Your task to perform on an android device: turn smart compose on in the gmail app Image 0: 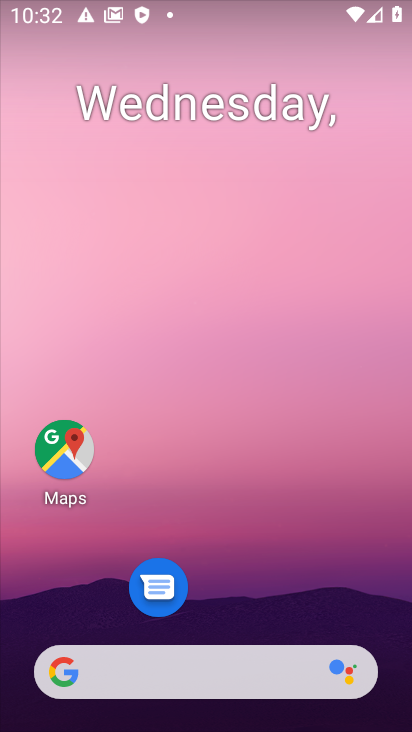
Step 0: press home button
Your task to perform on an android device: turn smart compose on in the gmail app Image 1: 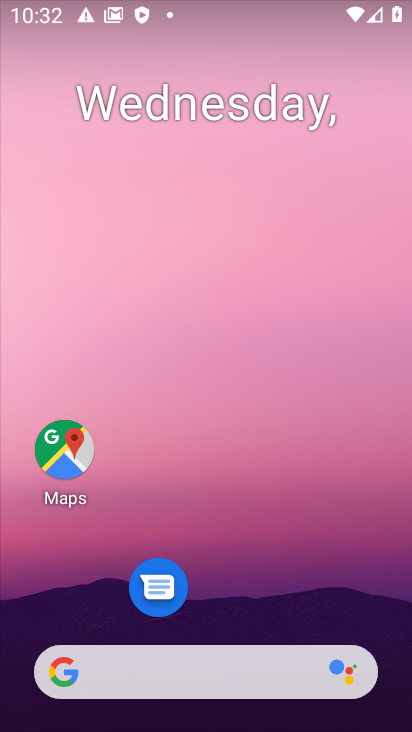
Step 1: drag from (224, 630) to (225, 82)
Your task to perform on an android device: turn smart compose on in the gmail app Image 2: 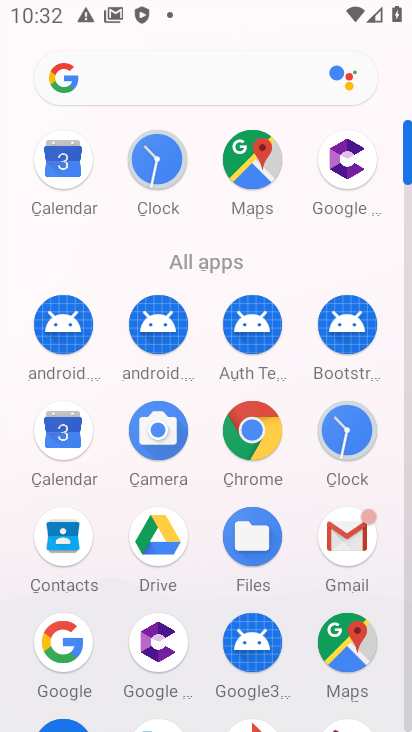
Step 2: click (348, 529)
Your task to perform on an android device: turn smart compose on in the gmail app Image 3: 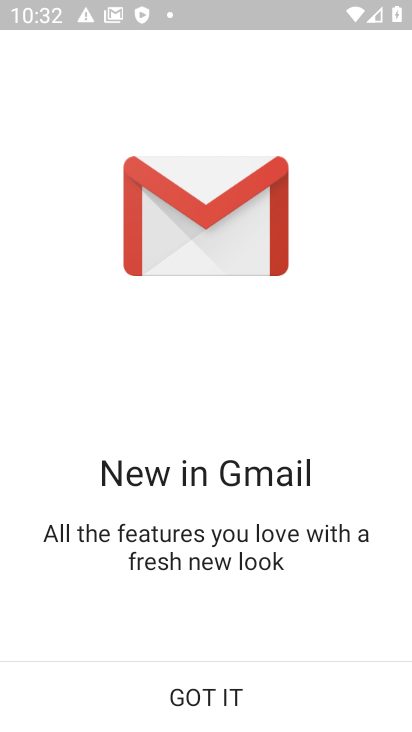
Step 3: click (208, 700)
Your task to perform on an android device: turn smart compose on in the gmail app Image 4: 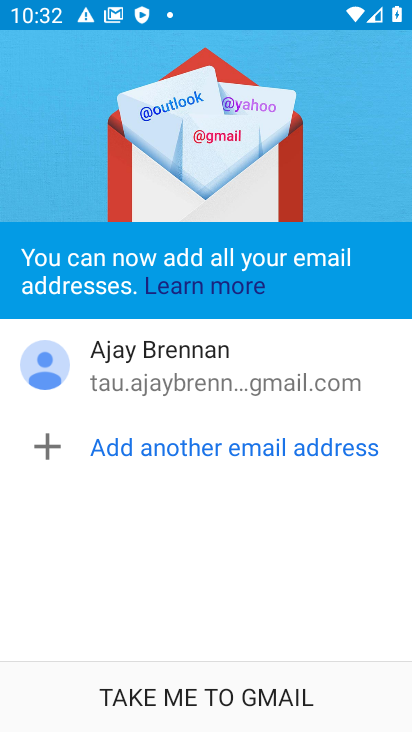
Step 4: click (208, 700)
Your task to perform on an android device: turn smart compose on in the gmail app Image 5: 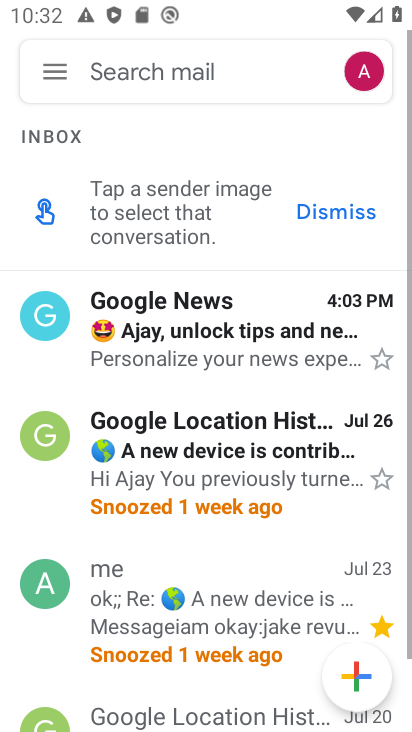
Step 5: click (65, 62)
Your task to perform on an android device: turn smart compose on in the gmail app Image 6: 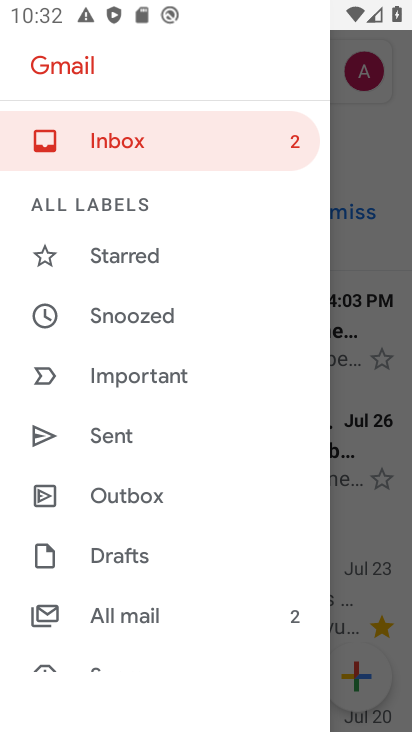
Step 6: drag from (139, 631) to (134, 53)
Your task to perform on an android device: turn smart compose on in the gmail app Image 7: 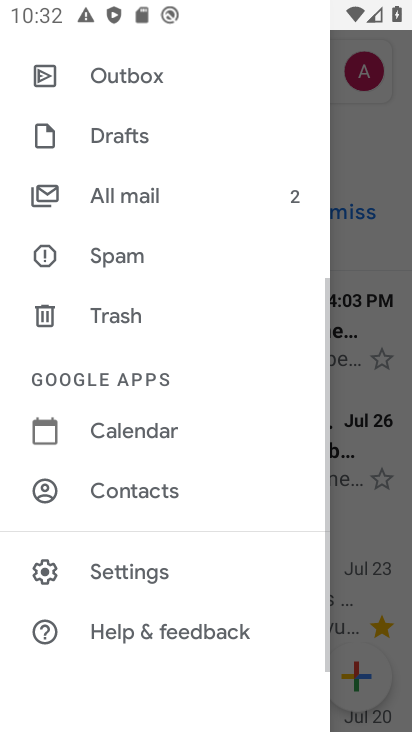
Step 7: click (125, 571)
Your task to perform on an android device: turn smart compose on in the gmail app Image 8: 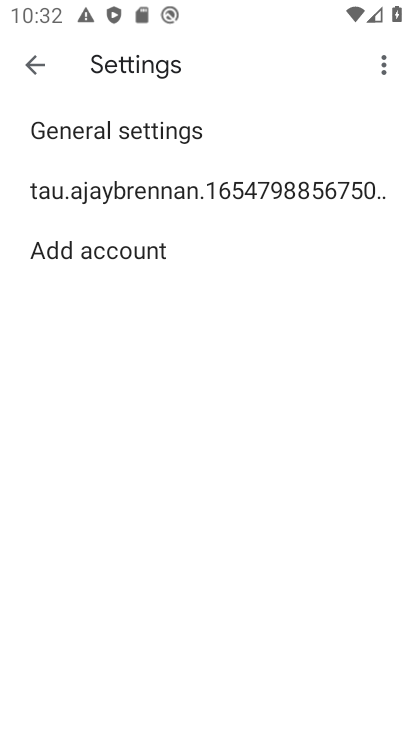
Step 8: click (127, 184)
Your task to perform on an android device: turn smart compose on in the gmail app Image 9: 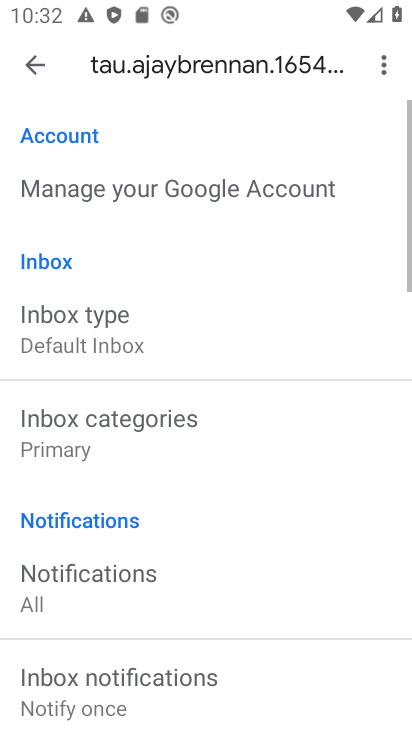
Step 9: task complete